Your task to perform on an android device: When is my next meeting? Image 0: 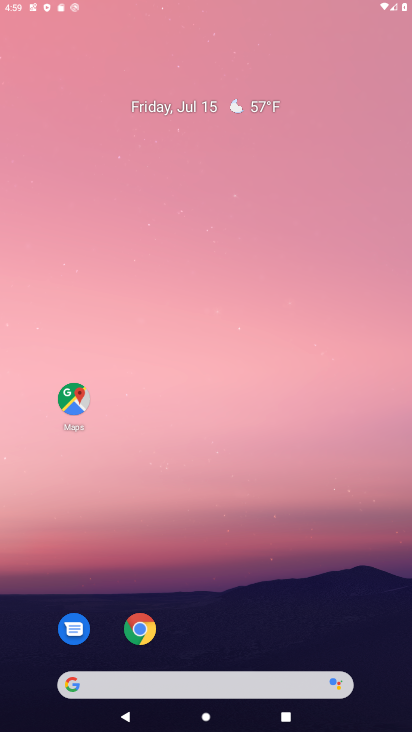
Step 0: press home button
Your task to perform on an android device: When is my next meeting? Image 1: 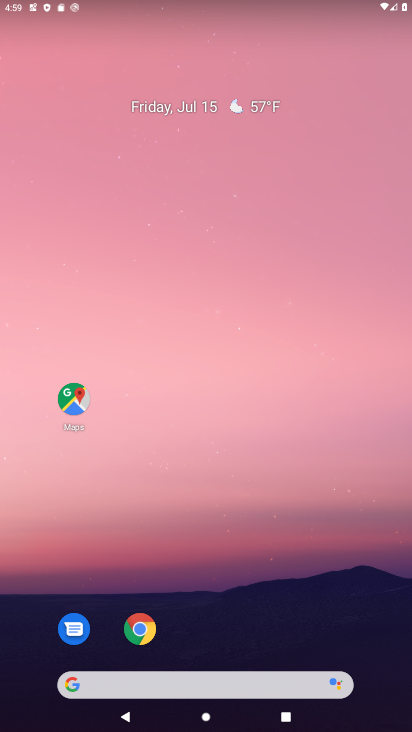
Step 1: press home button
Your task to perform on an android device: When is my next meeting? Image 2: 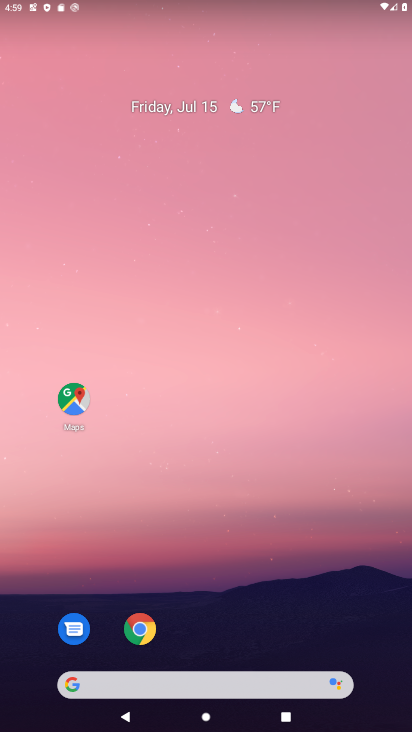
Step 2: drag from (302, 580) to (330, 13)
Your task to perform on an android device: When is my next meeting? Image 3: 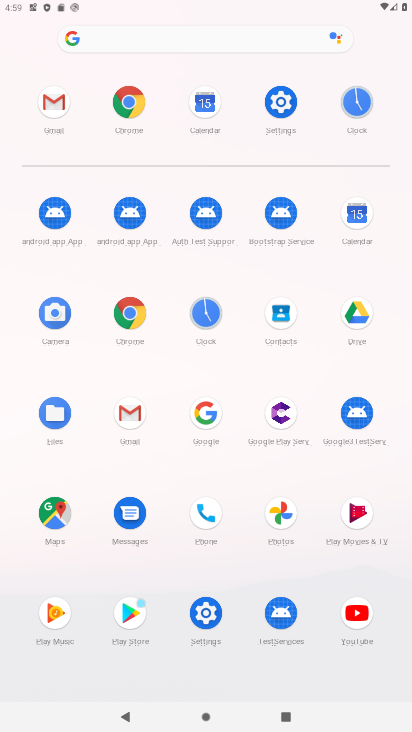
Step 3: click (362, 213)
Your task to perform on an android device: When is my next meeting? Image 4: 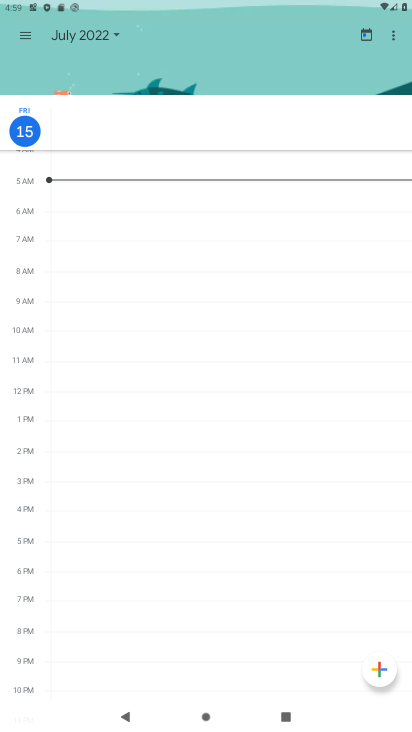
Step 4: click (39, 33)
Your task to perform on an android device: When is my next meeting? Image 5: 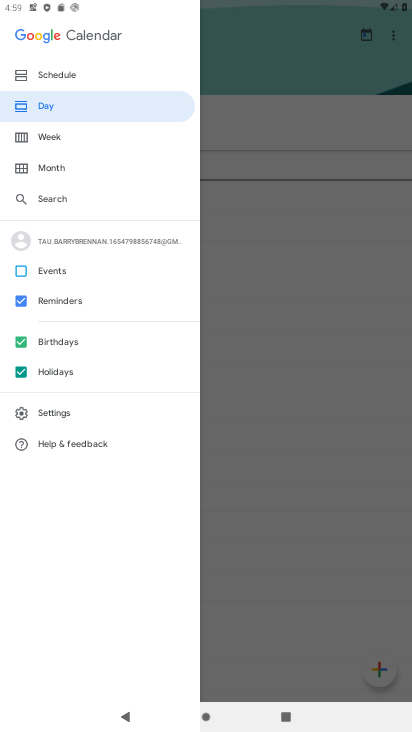
Step 5: click (51, 67)
Your task to perform on an android device: When is my next meeting? Image 6: 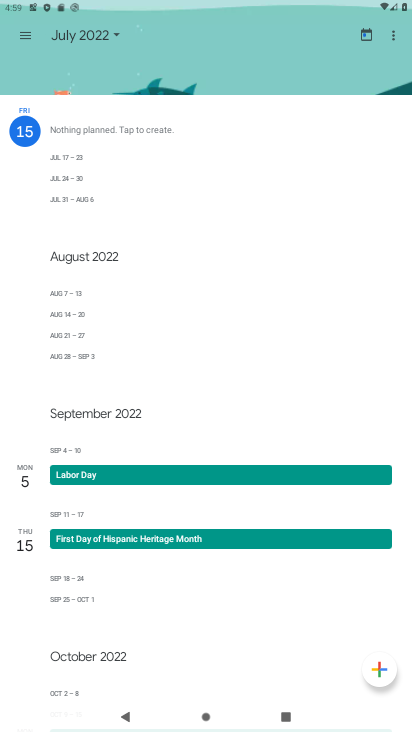
Step 6: task complete